Your task to perform on an android device: Open Amazon Image 0: 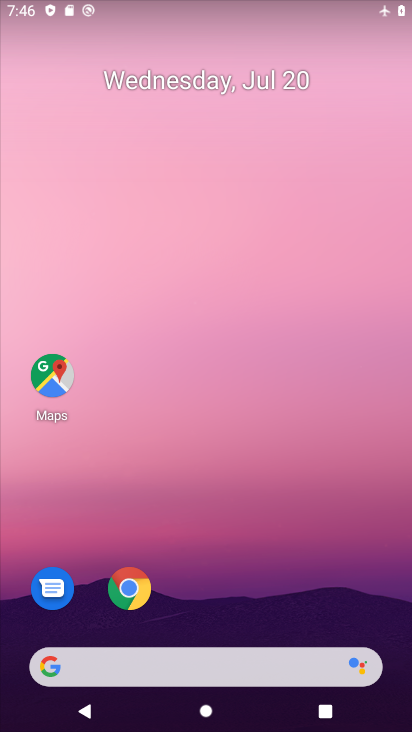
Step 0: click (105, 666)
Your task to perform on an android device: Open Amazon Image 1: 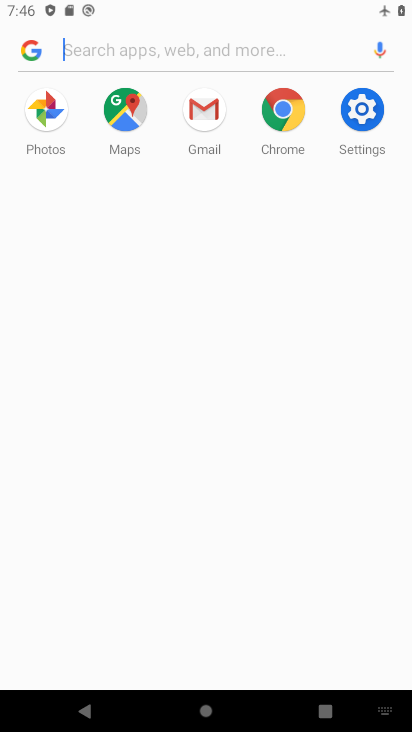
Step 1: type "Amazon"
Your task to perform on an android device: Open Amazon Image 2: 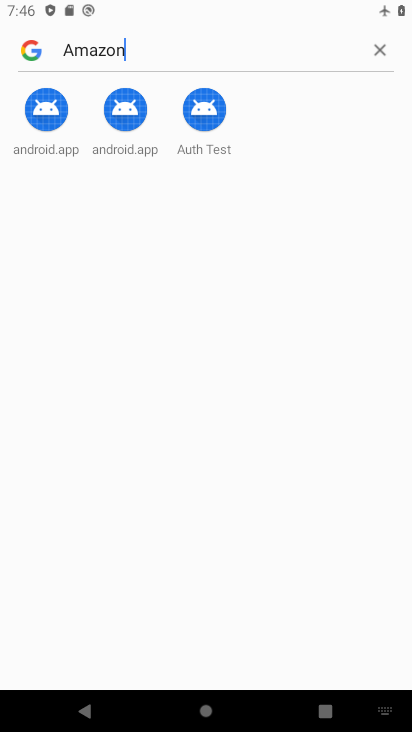
Step 2: type ""
Your task to perform on an android device: Open Amazon Image 3: 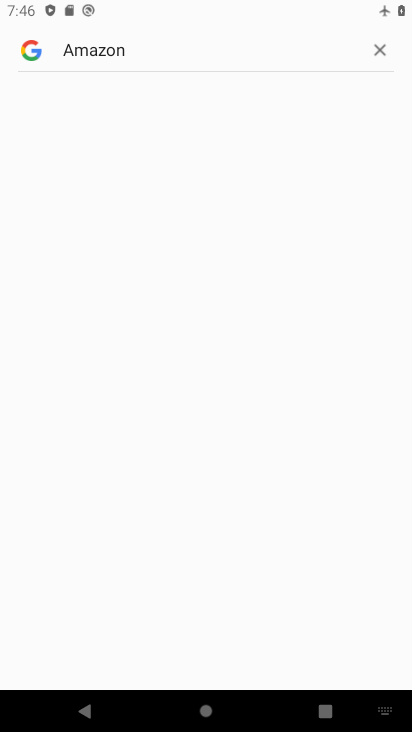
Step 3: type ""
Your task to perform on an android device: Open Amazon Image 4: 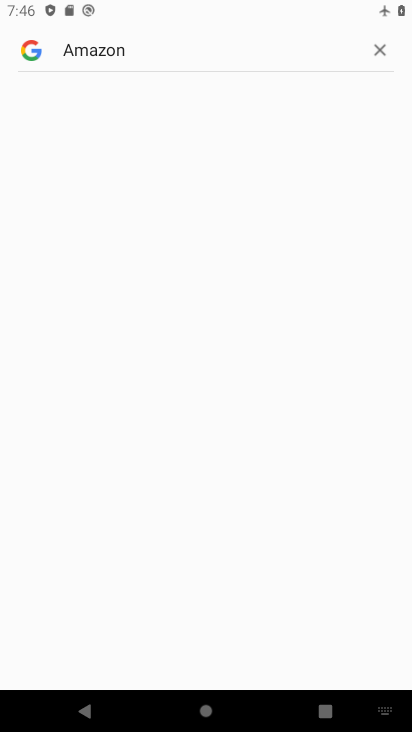
Step 4: type ""
Your task to perform on an android device: Open Amazon Image 5: 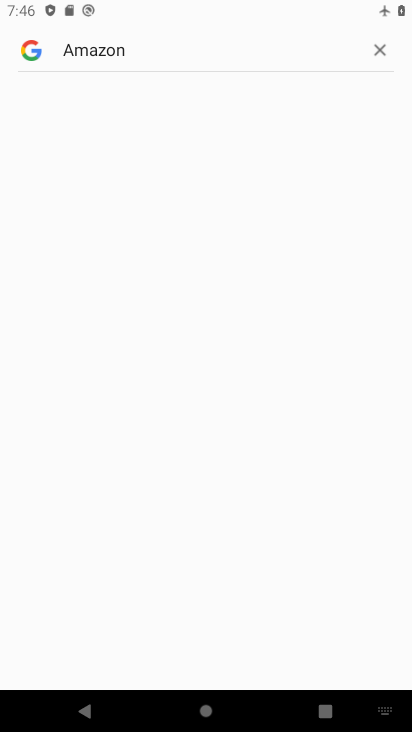
Step 5: type ""
Your task to perform on an android device: Open Amazon Image 6: 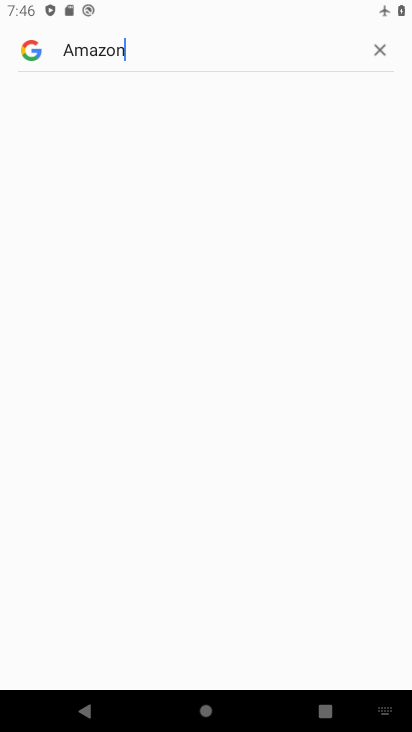
Step 6: type ""
Your task to perform on an android device: Open Amazon Image 7: 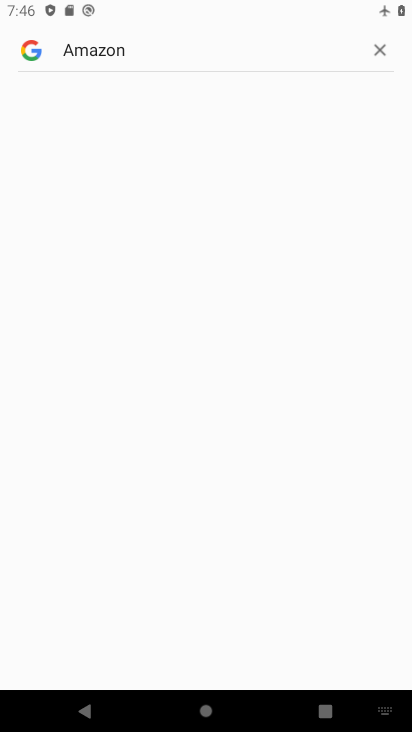
Step 7: task complete